Your task to perform on an android device: add a contact in the contacts app Image 0: 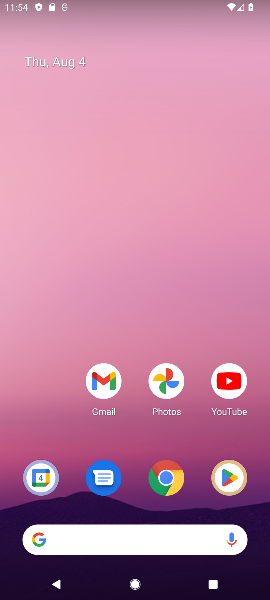
Step 0: drag from (198, 448) to (256, 56)
Your task to perform on an android device: add a contact in the contacts app Image 1: 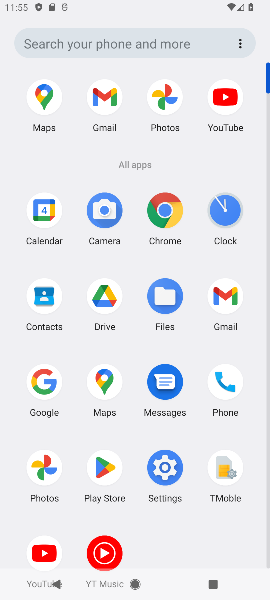
Step 1: click (40, 298)
Your task to perform on an android device: add a contact in the contacts app Image 2: 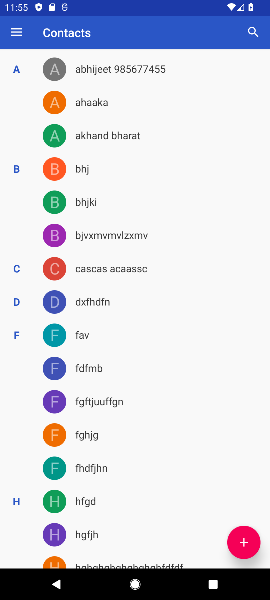
Step 2: click (235, 530)
Your task to perform on an android device: add a contact in the contacts app Image 3: 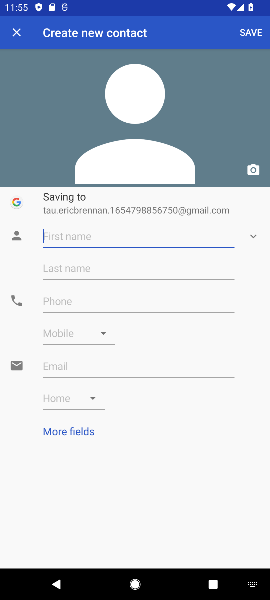
Step 3: type "ooop"
Your task to perform on an android device: add a contact in the contacts app Image 4: 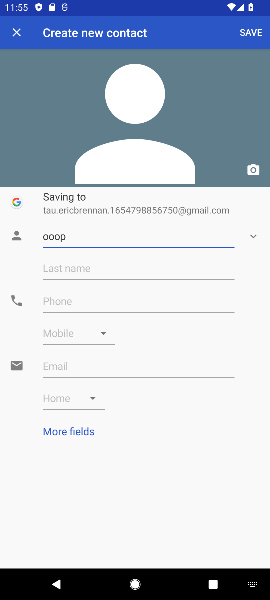
Step 4: click (88, 296)
Your task to perform on an android device: add a contact in the contacts app Image 5: 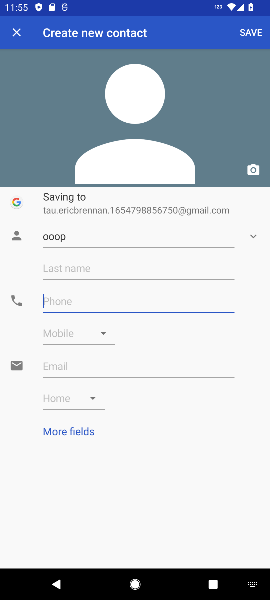
Step 5: type "88885"
Your task to perform on an android device: add a contact in the contacts app Image 6: 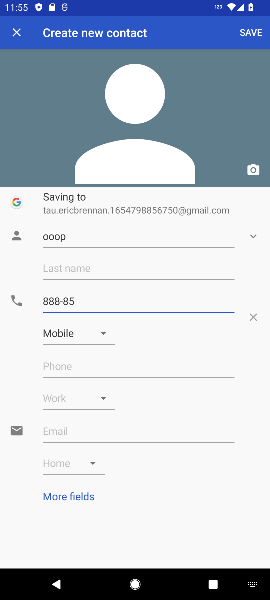
Step 6: click (255, 22)
Your task to perform on an android device: add a contact in the contacts app Image 7: 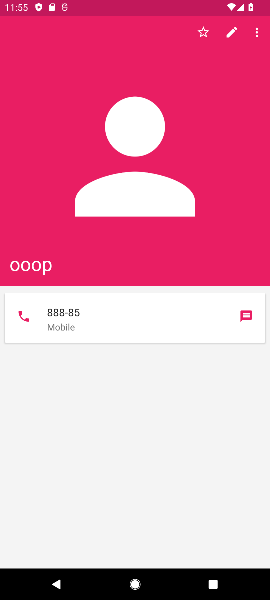
Step 7: task complete